Your task to perform on an android device: Go to Maps Image 0: 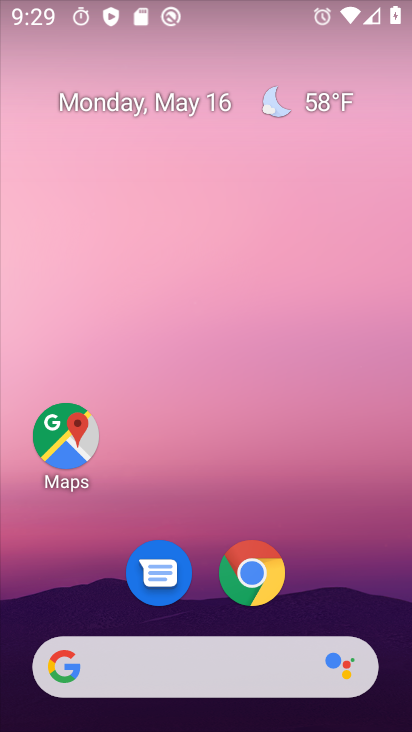
Step 0: click (206, 86)
Your task to perform on an android device: Go to Maps Image 1: 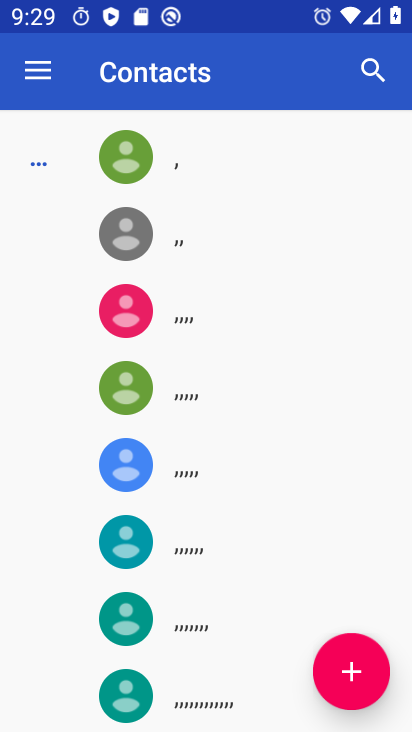
Step 1: press back button
Your task to perform on an android device: Go to Maps Image 2: 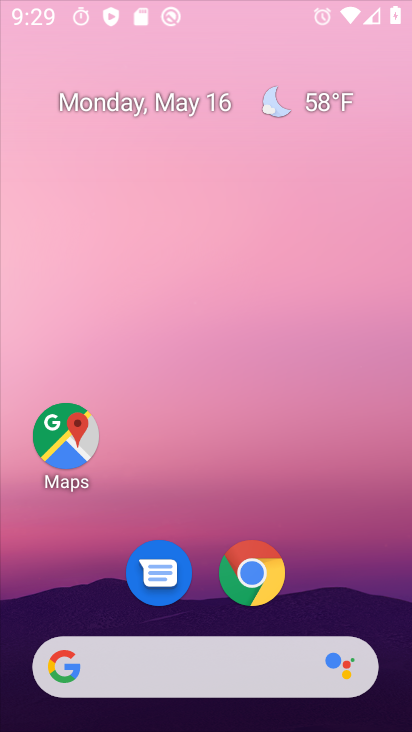
Step 2: drag from (262, 638) to (277, 173)
Your task to perform on an android device: Go to Maps Image 3: 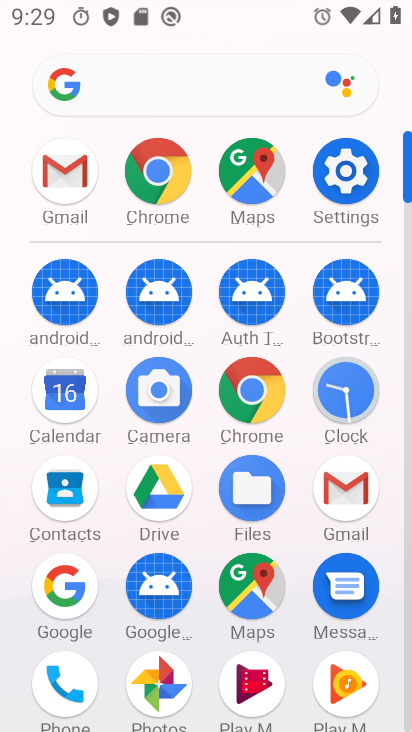
Step 3: click (240, 582)
Your task to perform on an android device: Go to Maps Image 4: 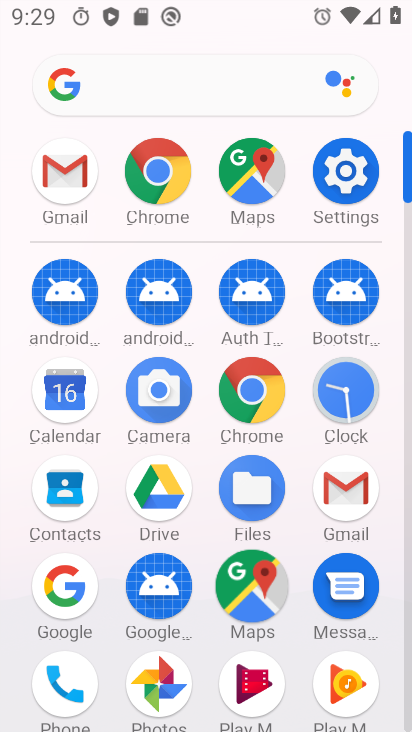
Step 4: click (240, 582)
Your task to perform on an android device: Go to Maps Image 5: 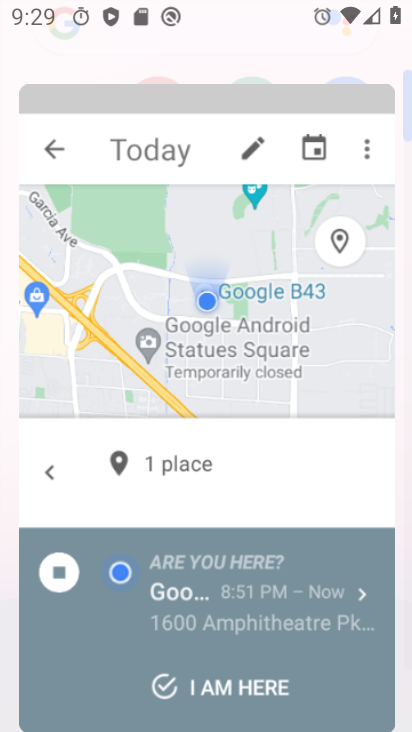
Step 5: click (240, 582)
Your task to perform on an android device: Go to Maps Image 6: 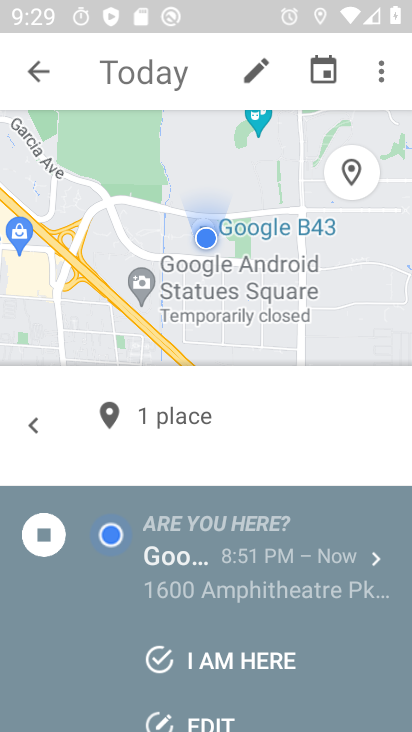
Step 6: task complete